Your task to perform on an android device: Go to Maps Image 0: 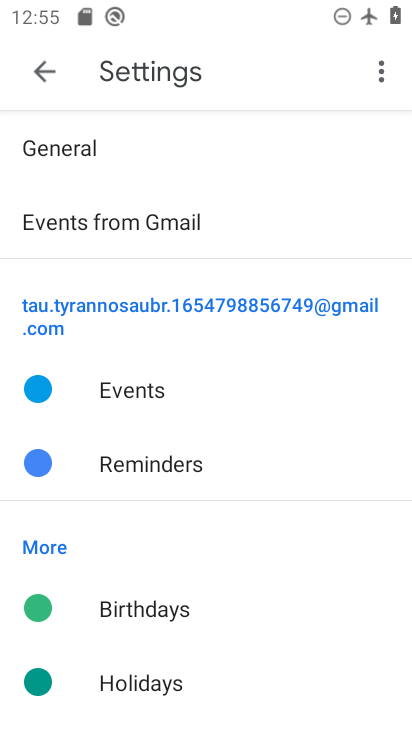
Step 0: press home button
Your task to perform on an android device: Go to Maps Image 1: 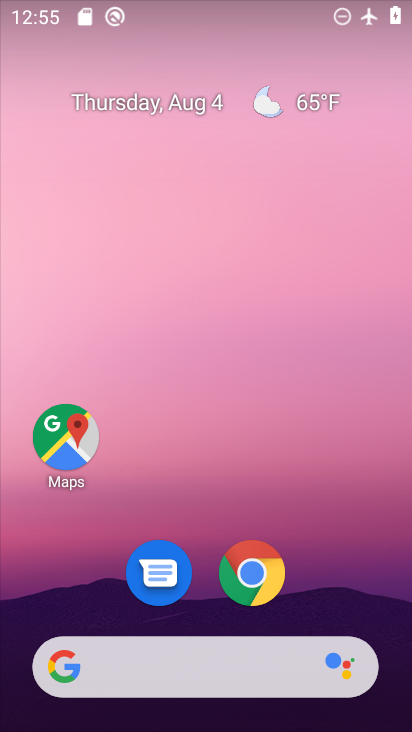
Step 1: drag from (329, 512) to (349, 82)
Your task to perform on an android device: Go to Maps Image 2: 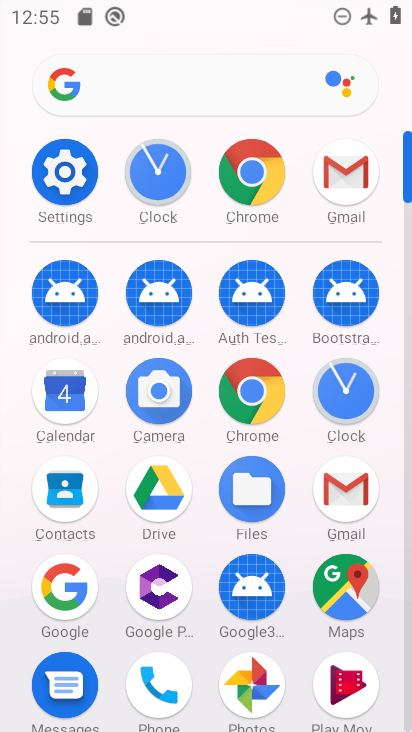
Step 2: click (368, 589)
Your task to perform on an android device: Go to Maps Image 3: 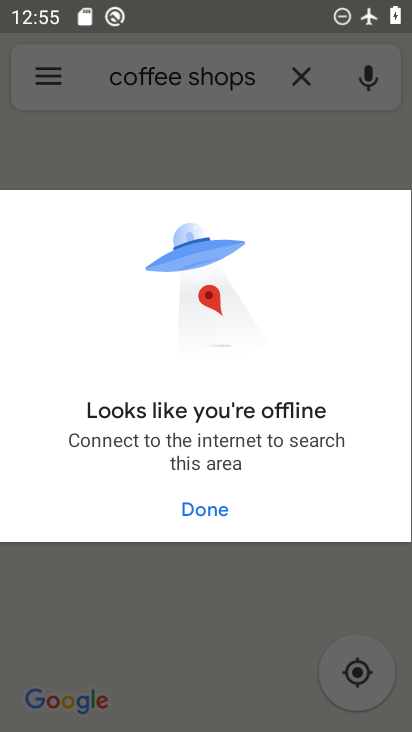
Step 3: task complete